Your task to perform on an android device: change notifications settings Image 0: 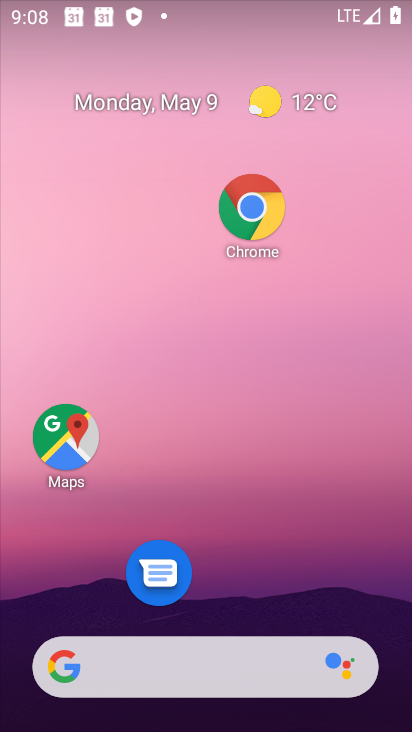
Step 0: drag from (299, 670) to (316, 302)
Your task to perform on an android device: change notifications settings Image 1: 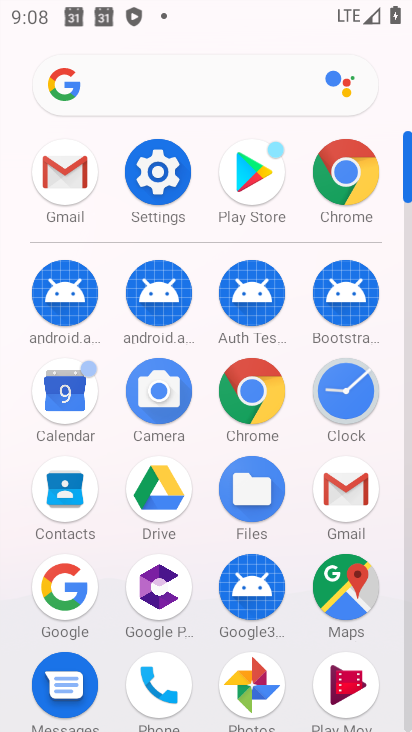
Step 1: click (164, 202)
Your task to perform on an android device: change notifications settings Image 2: 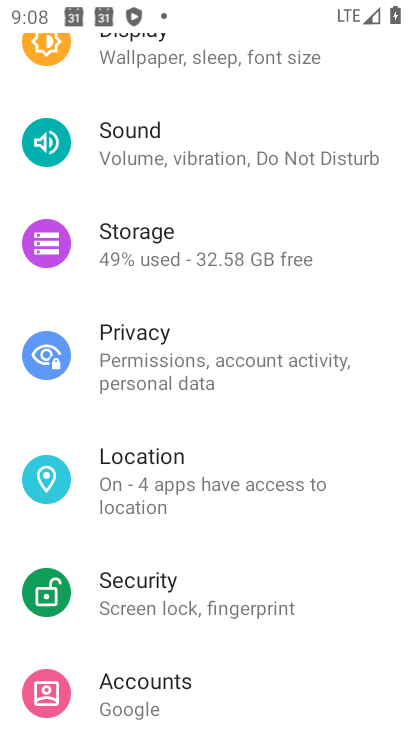
Step 2: drag from (164, 202) to (167, 375)
Your task to perform on an android device: change notifications settings Image 3: 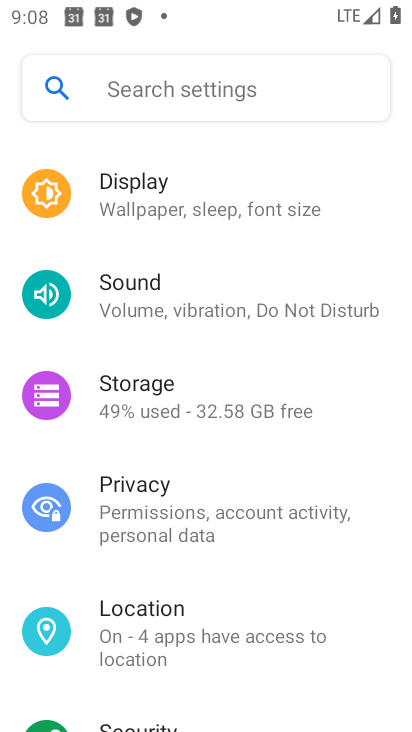
Step 3: drag from (151, 214) to (161, 429)
Your task to perform on an android device: change notifications settings Image 4: 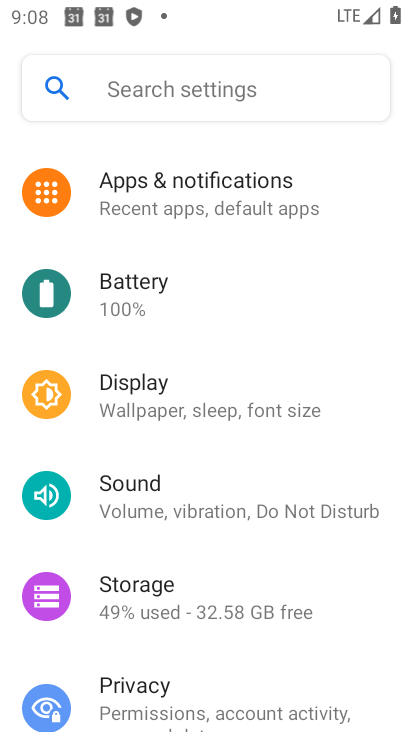
Step 4: drag from (181, 233) to (191, 308)
Your task to perform on an android device: change notifications settings Image 5: 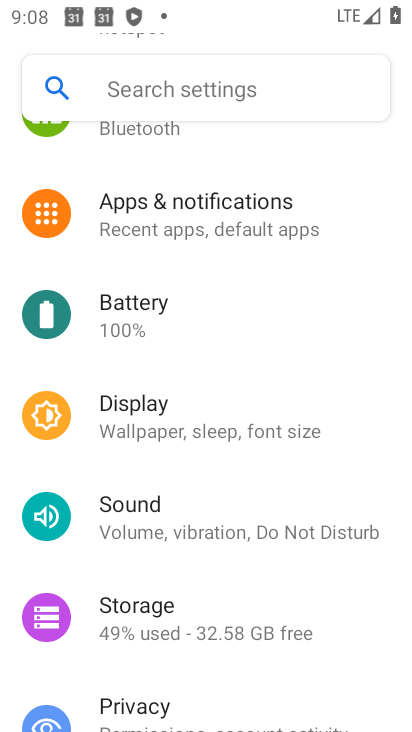
Step 5: drag from (220, 175) to (241, 361)
Your task to perform on an android device: change notifications settings Image 6: 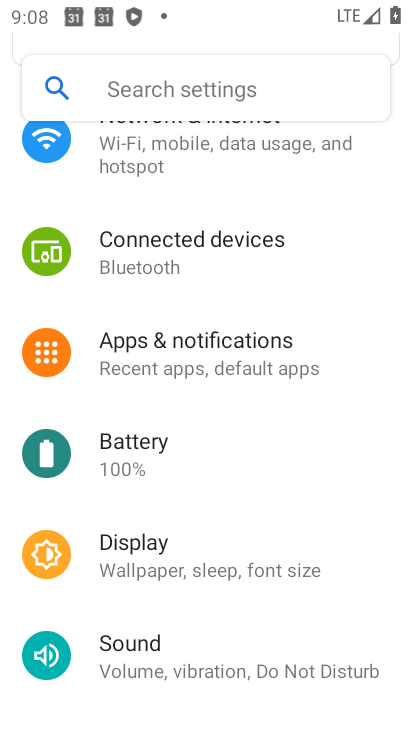
Step 6: click (257, 348)
Your task to perform on an android device: change notifications settings Image 7: 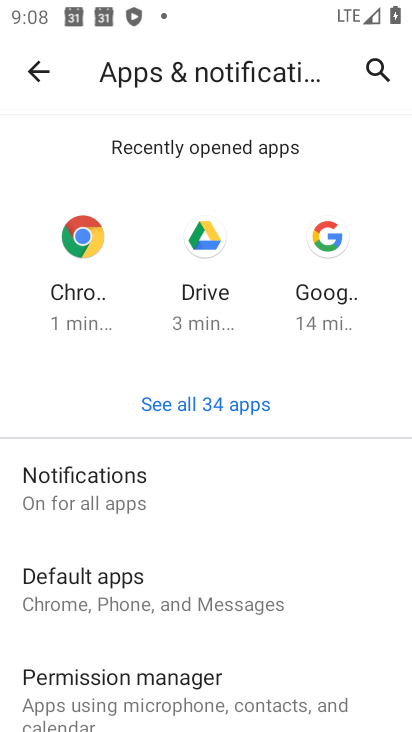
Step 7: click (221, 477)
Your task to perform on an android device: change notifications settings Image 8: 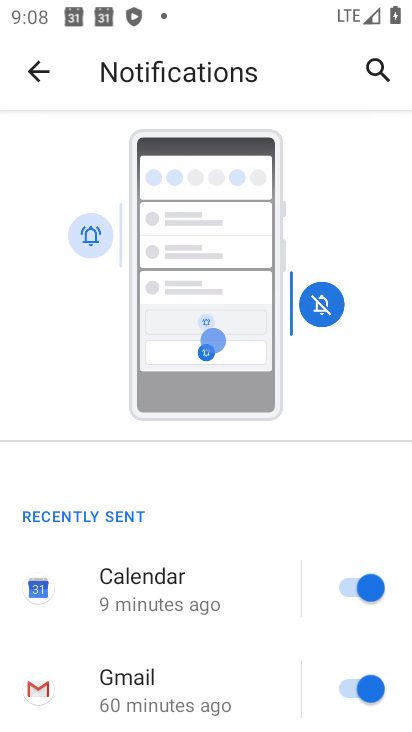
Step 8: click (344, 587)
Your task to perform on an android device: change notifications settings Image 9: 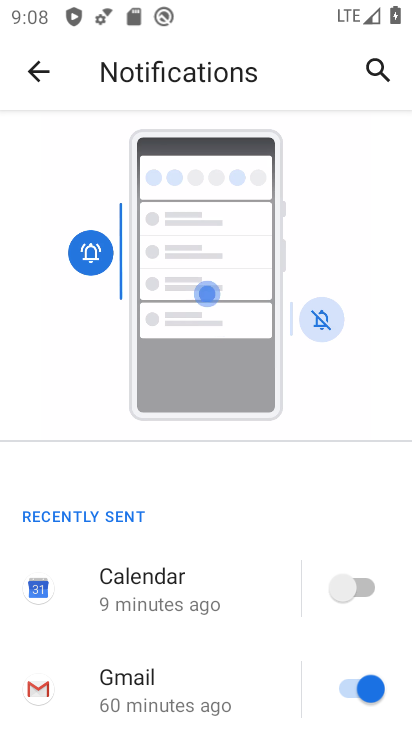
Step 9: task complete